Your task to perform on an android device: manage bookmarks in the chrome app Image 0: 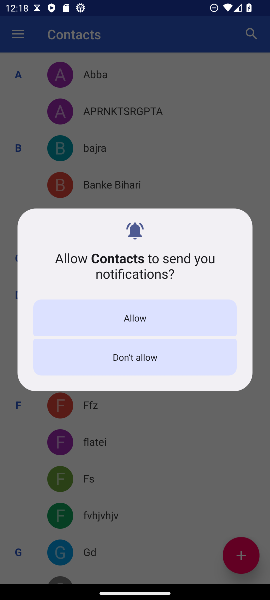
Step 0: press home button
Your task to perform on an android device: manage bookmarks in the chrome app Image 1: 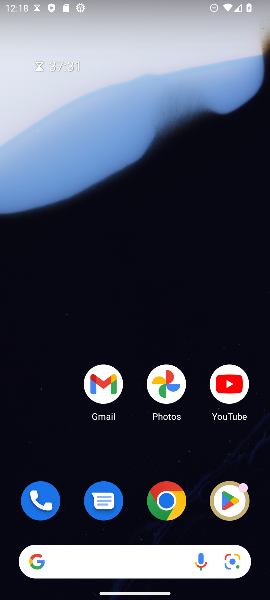
Step 1: click (170, 513)
Your task to perform on an android device: manage bookmarks in the chrome app Image 2: 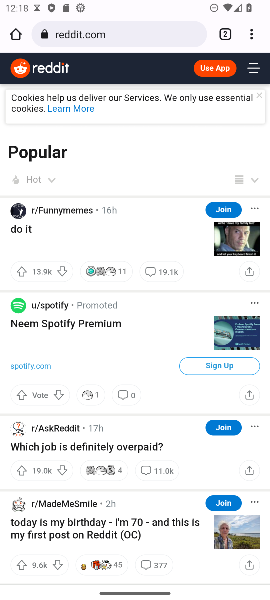
Step 2: click (256, 30)
Your task to perform on an android device: manage bookmarks in the chrome app Image 3: 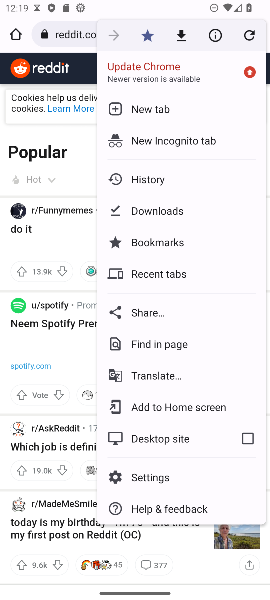
Step 3: click (144, 242)
Your task to perform on an android device: manage bookmarks in the chrome app Image 4: 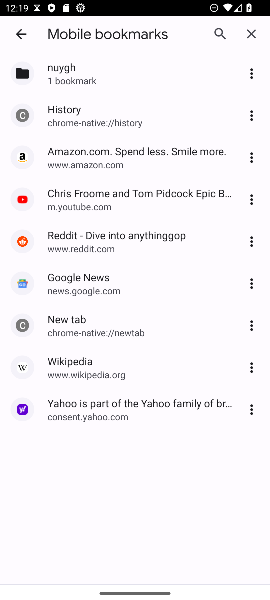
Step 4: click (249, 116)
Your task to perform on an android device: manage bookmarks in the chrome app Image 5: 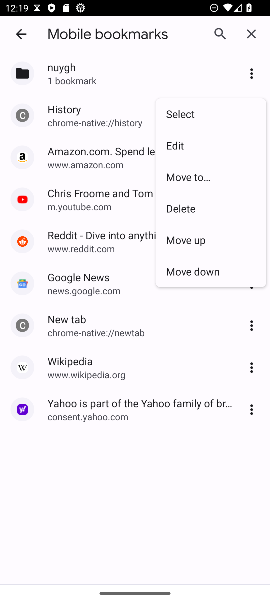
Step 5: click (187, 207)
Your task to perform on an android device: manage bookmarks in the chrome app Image 6: 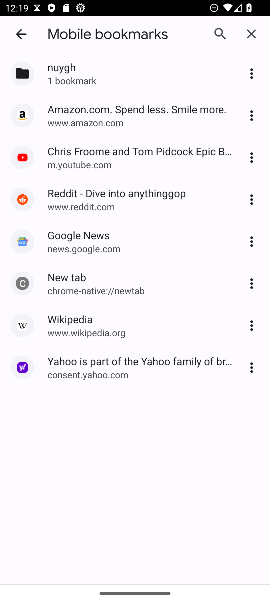
Step 6: task complete